Your task to perform on an android device: install app "Google Docs" Image 0: 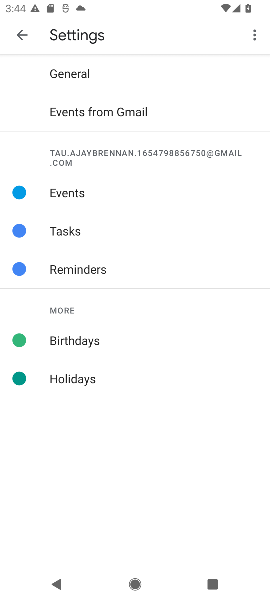
Step 0: click (17, 38)
Your task to perform on an android device: install app "Google Docs" Image 1: 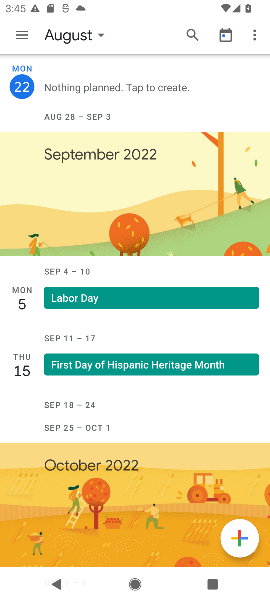
Step 1: press home button
Your task to perform on an android device: install app "Google Docs" Image 2: 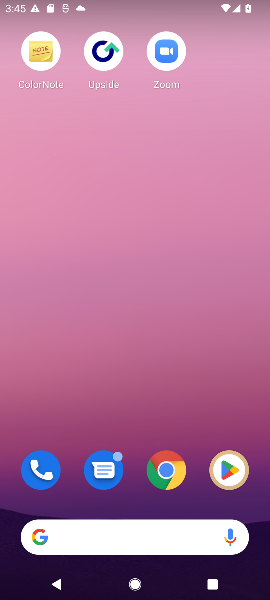
Step 2: click (245, 469)
Your task to perform on an android device: install app "Google Docs" Image 3: 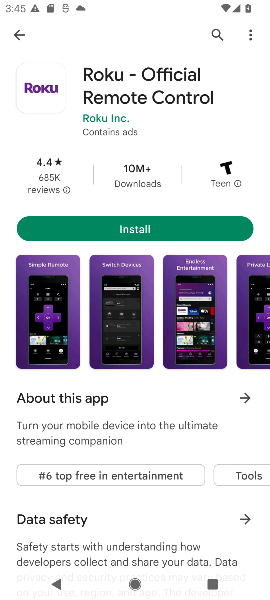
Step 3: click (19, 33)
Your task to perform on an android device: install app "Google Docs" Image 4: 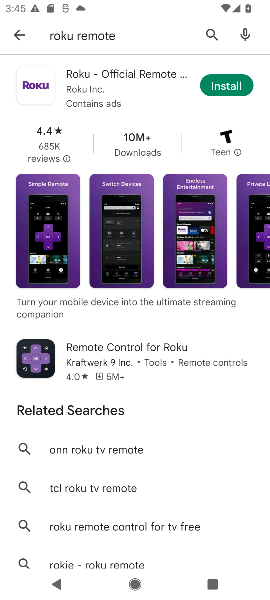
Step 4: click (29, 38)
Your task to perform on an android device: install app "Google Docs" Image 5: 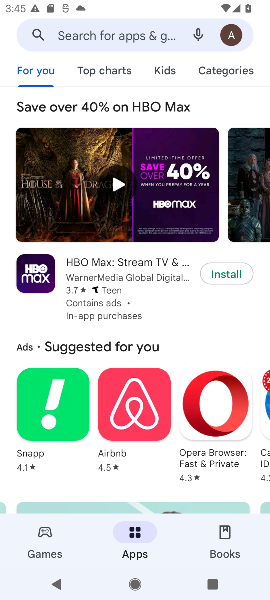
Step 5: click (106, 26)
Your task to perform on an android device: install app "Google Docs" Image 6: 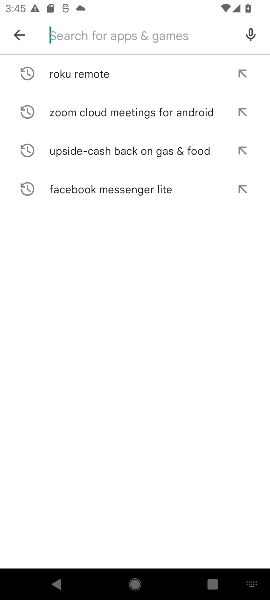
Step 6: type "Google Docs "
Your task to perform on an android device: install app "Google Docs" Image 7: 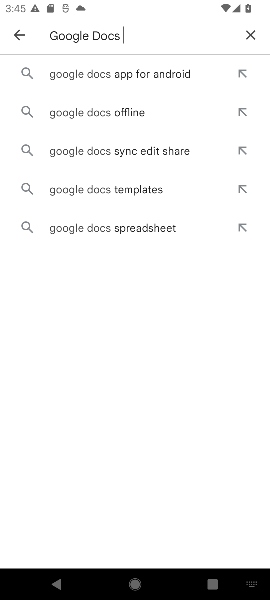
Step 7: click (129, 77)
Your task to perform on an android device: install app "Google Docs" Image 8: 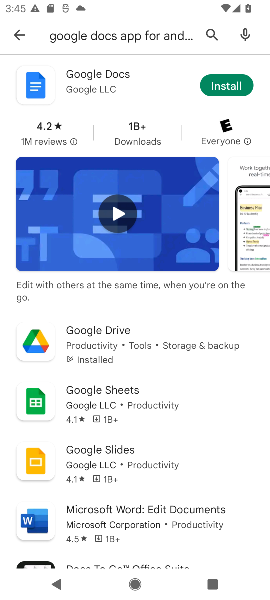
Step 8: click (226, 86)
Your task to perform on an android device: install app "Google Docs" Image 9: 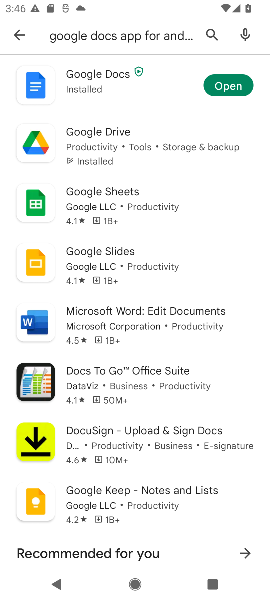
Step 9: click (226, 86)
Your task to perform on an android device: install app "Google Docs" Image 10: 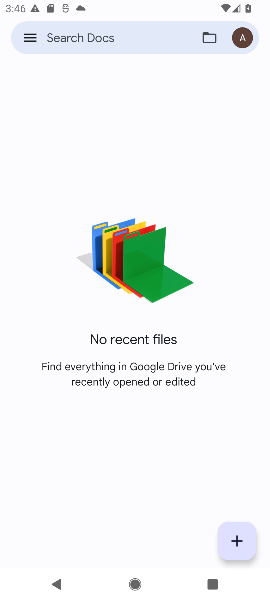
Step 10: task complete